Your task to perform on an android device: Check the weather Image 0: 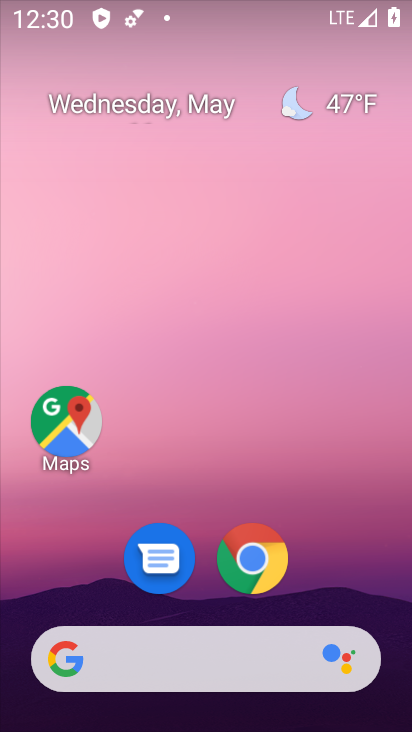
Step 0: click (289, 102)
Your task to perform on an android device: Check the weather Image 1: 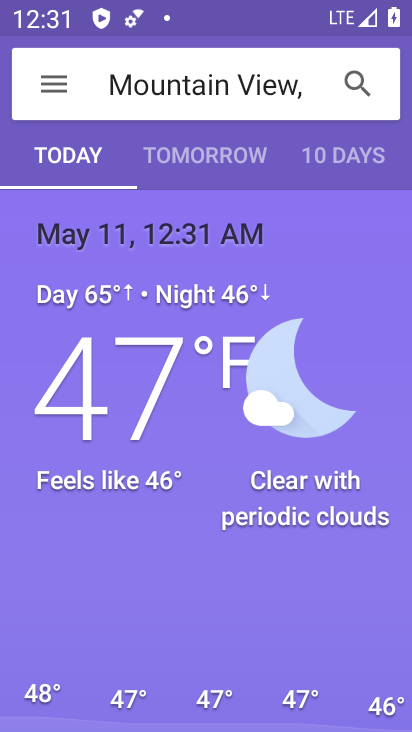
Step 1: task complete